Your task to perform on an android device: View the shopping cart on walmart. Add alienware area 51 to the cart on walmart, then select checkout. Image 0: 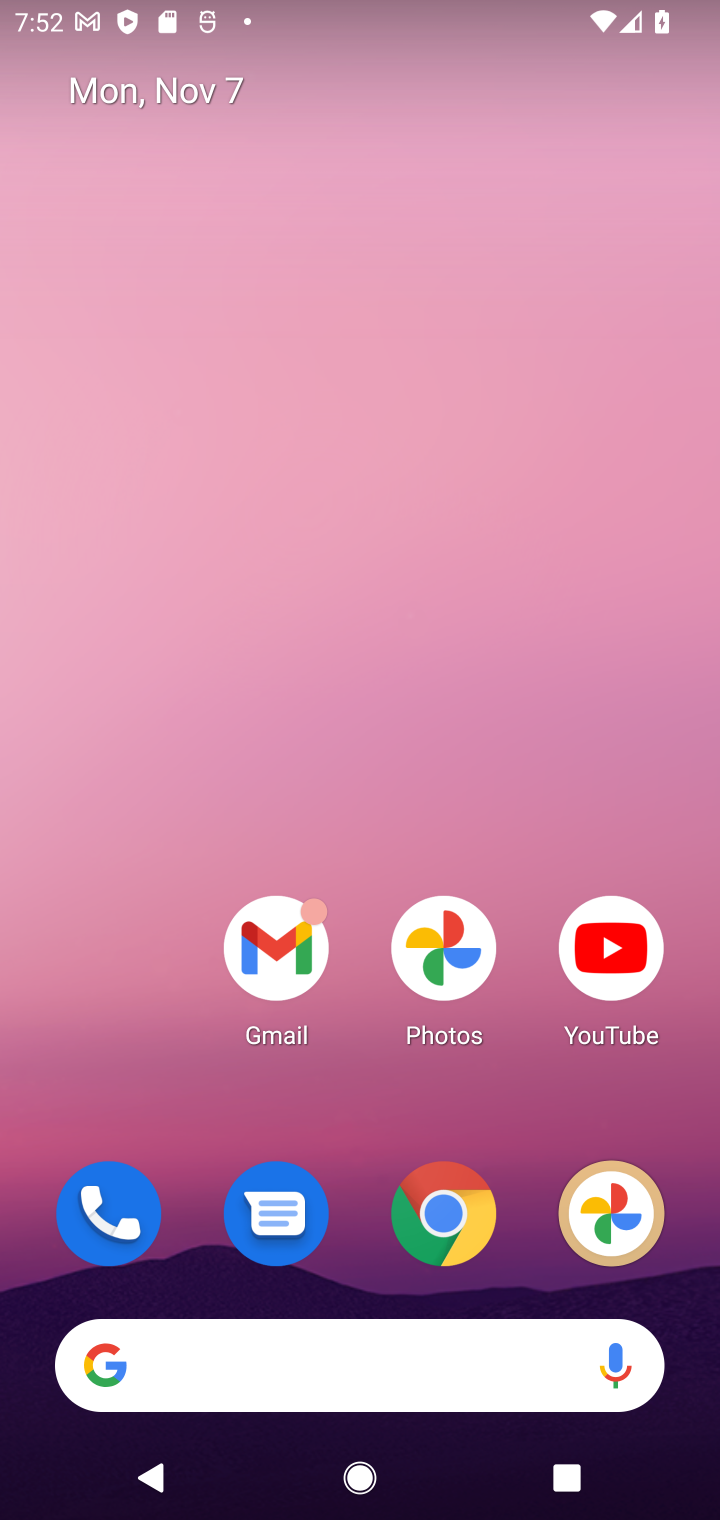
Step 0: click (444, 1231)
Your task to perform on an android device: View the shopping cart on walmart. Add alienware area 51 to the cart on walmart, then select checkout. Image 1: 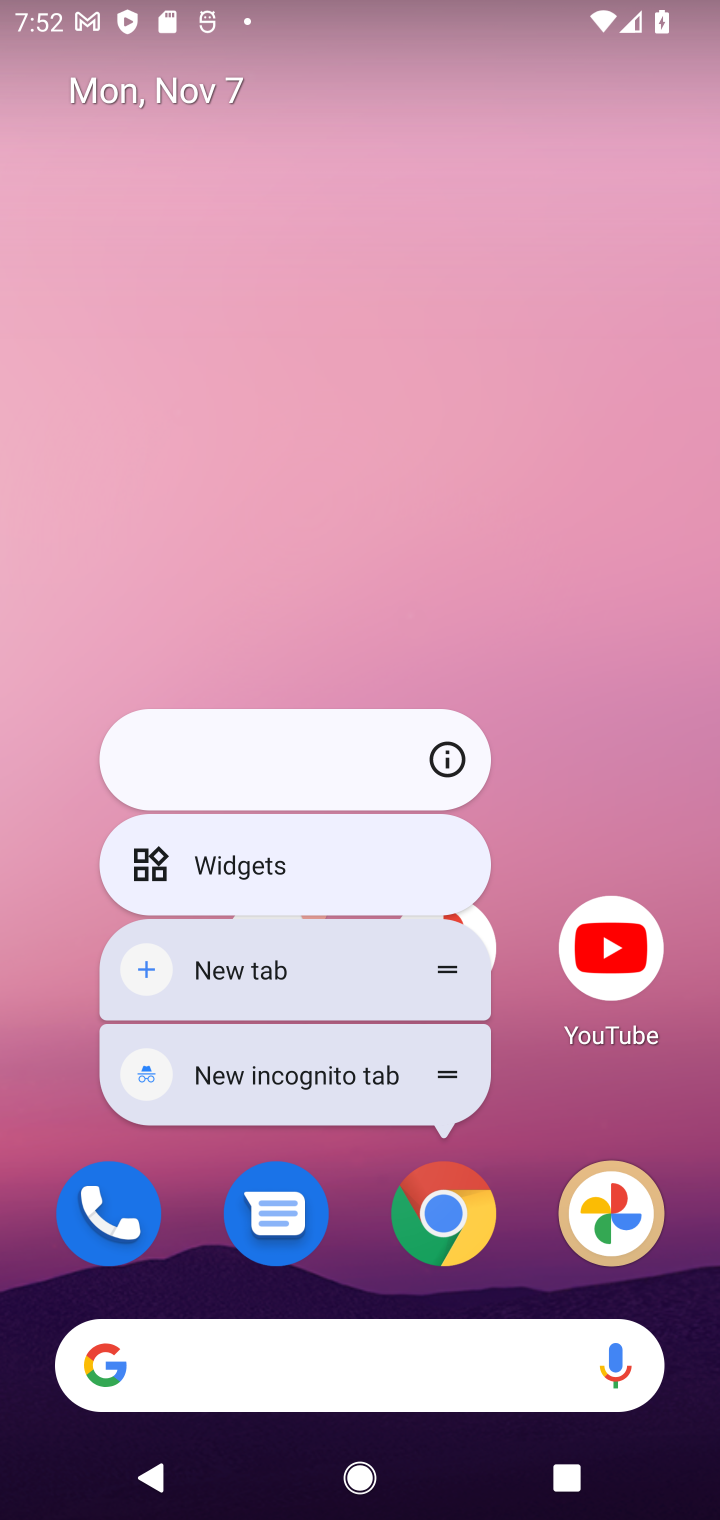
Step 1: click (444, 1231)
Your task to perform on an android device: View the shopping cart on walmart. Add alienware area 51 to the cart on walmart, then select checkout. Image 2: 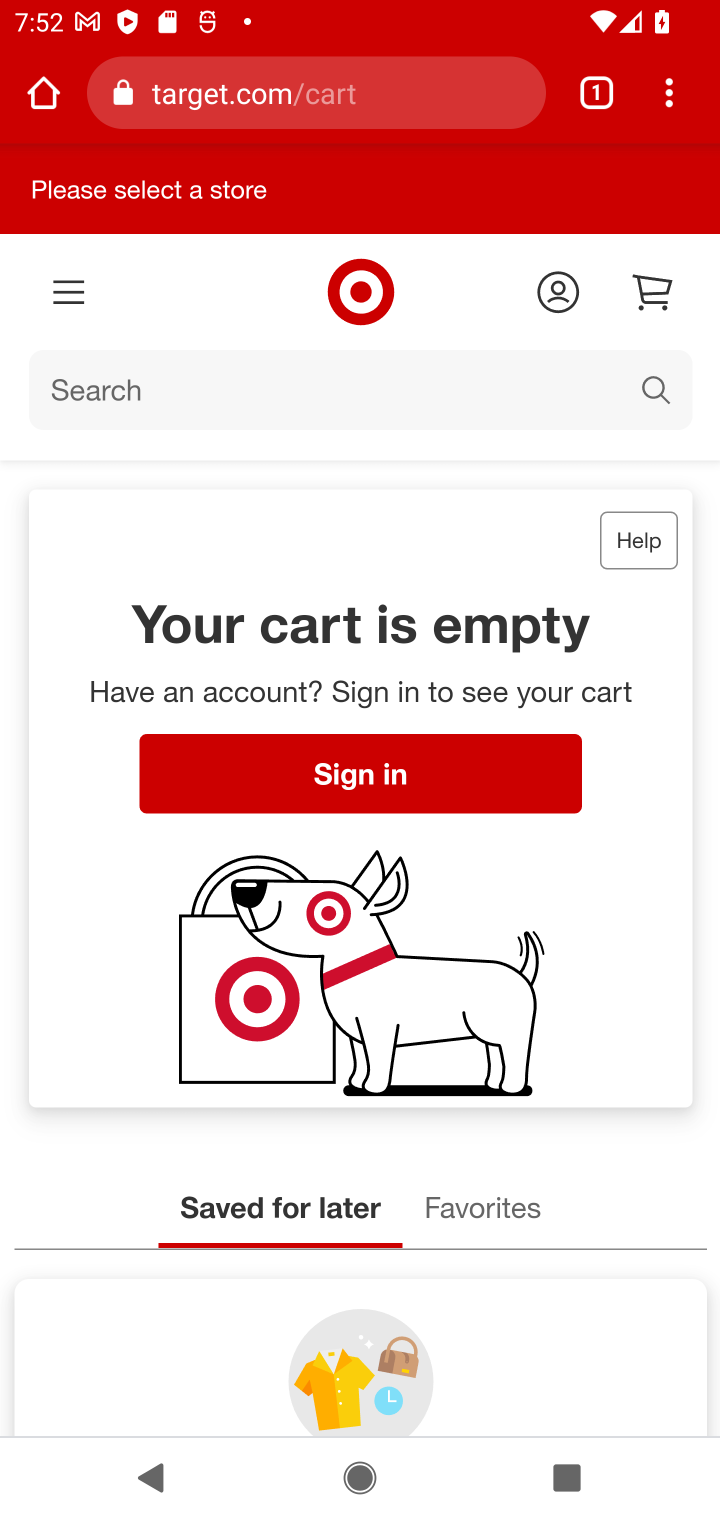
Step 2: click (251, 86)
Your task to perform on an android device: View the shopping cart on walmart. Add alienware area 51 to the cart on walmart, then select checkout. Image 3: 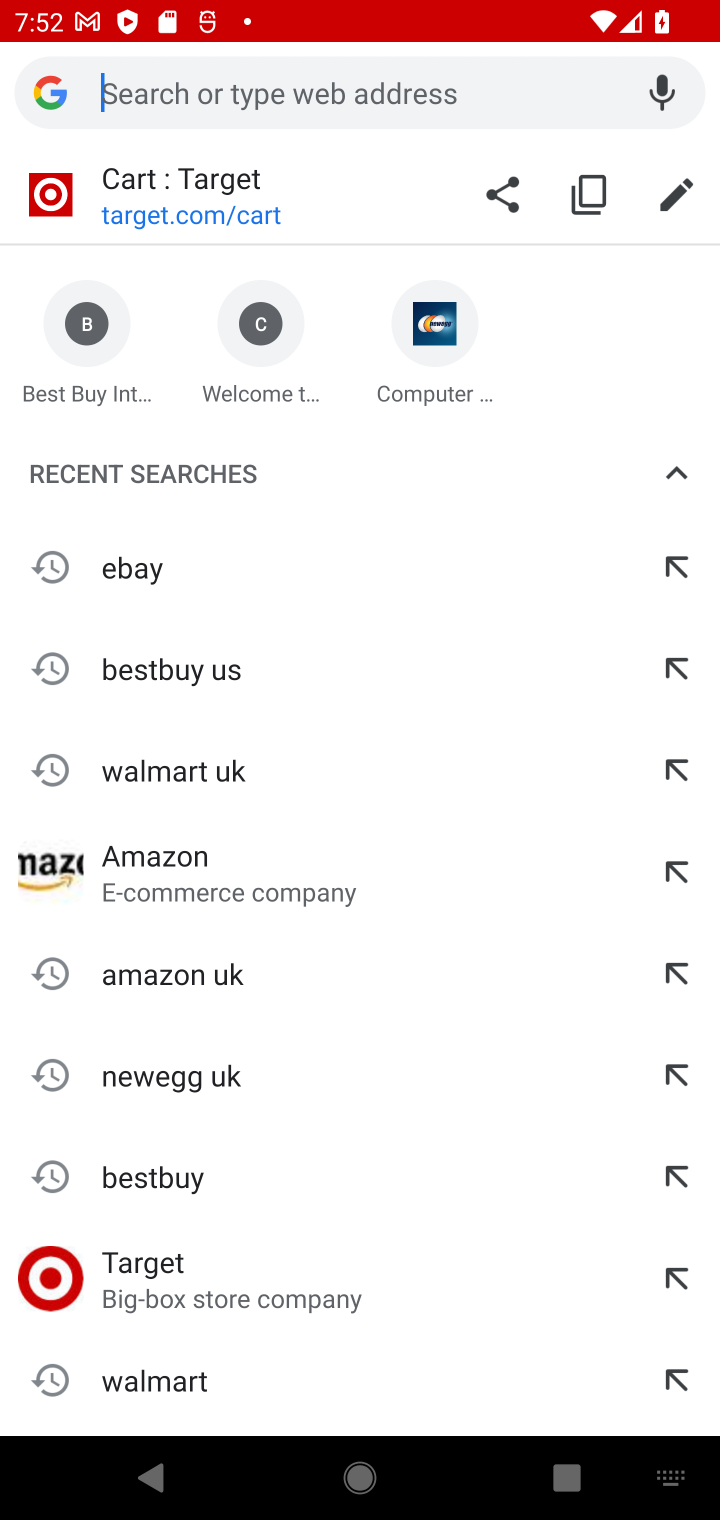
Step 3: type "walmart.com"
Your task to perform on an android device: View the shopping cart on walmart. Add alienware area 51 to the cart on walmart, then select checkout. Image 4: 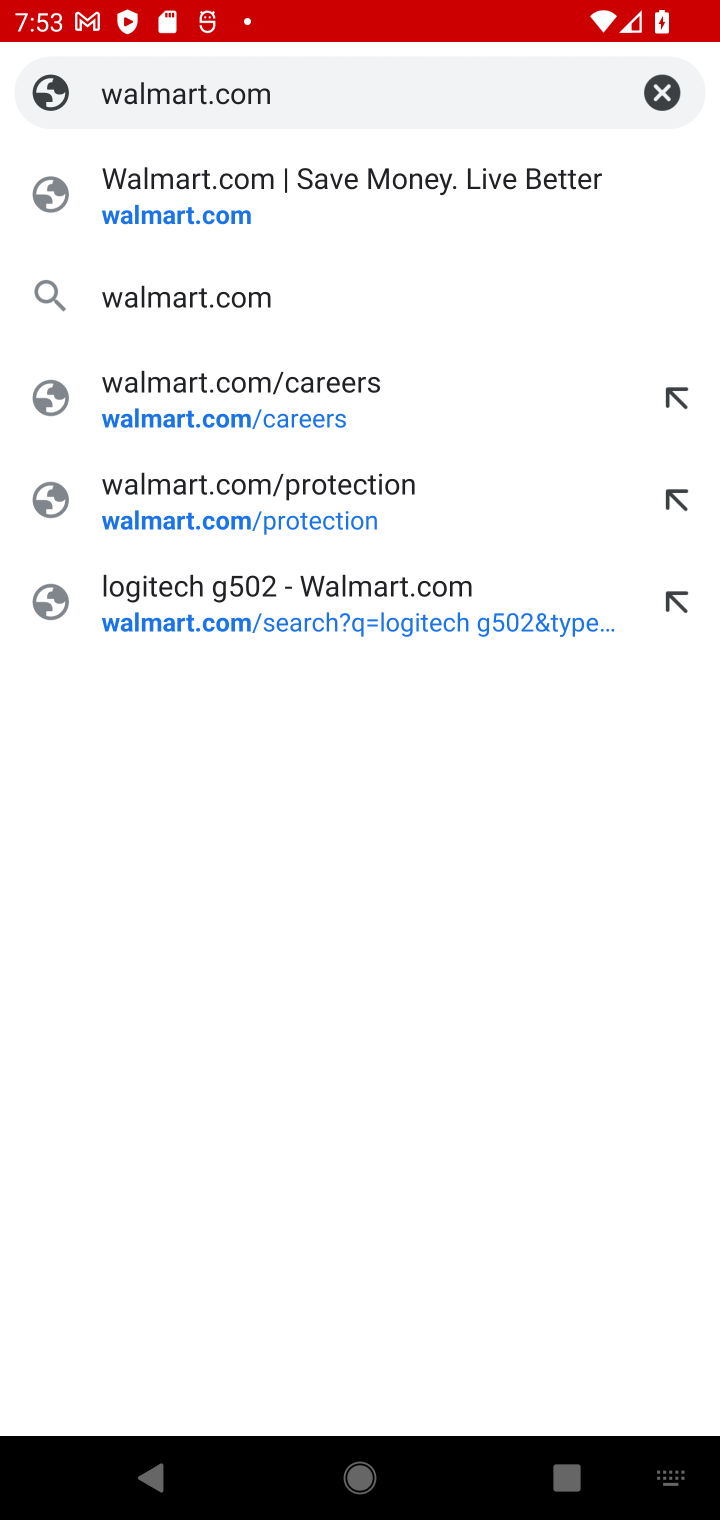
Step 4: click (155, 224)
Your task to perform on an android device: View the shopping cart on walmart. Add alienware area 51 to the cart on walmart, then select checkout. Image 5: 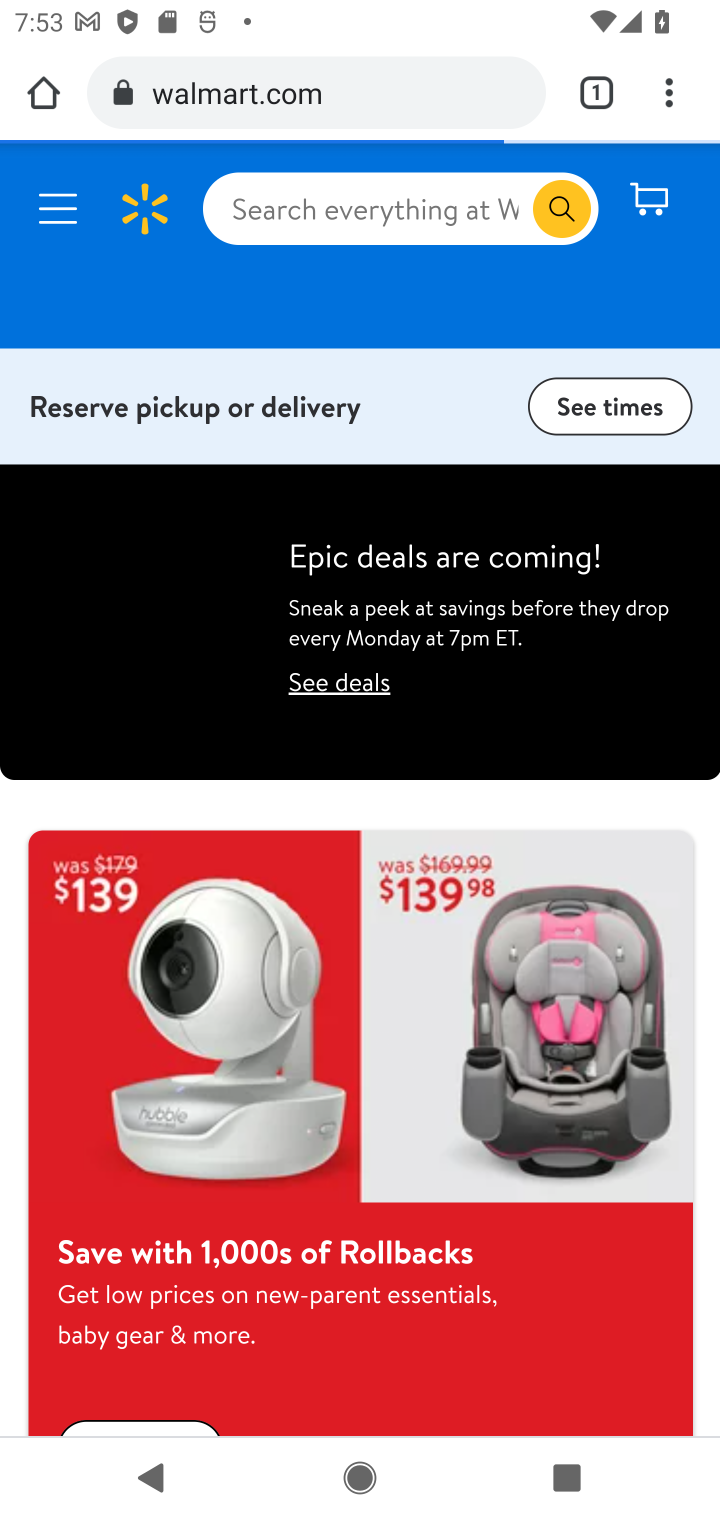
Step 5: click (652, 197)
Your task to perform on an android device: View the shopping cart on walmart. Add alienware area 51 to the cart on walmart, then select checkout. Image 6: 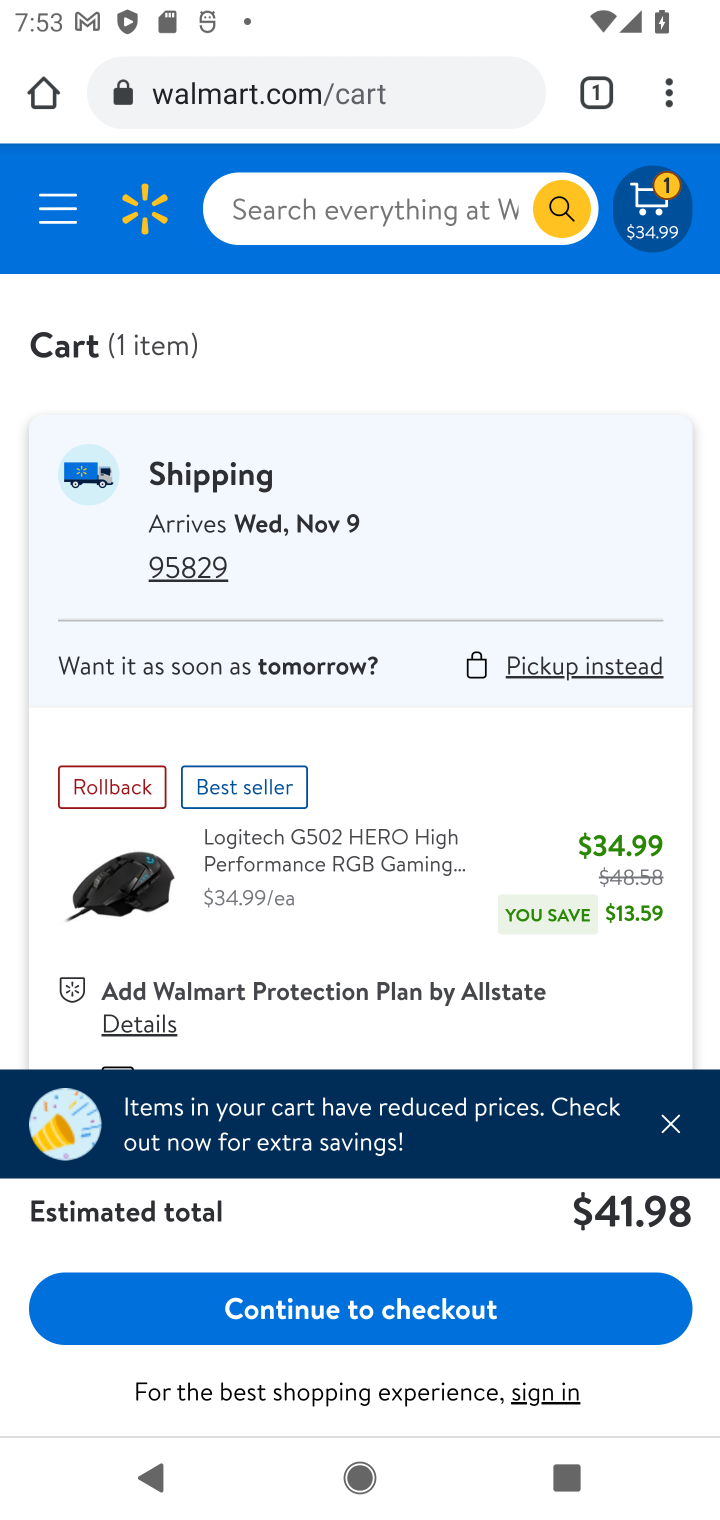
Step 6: click (404, 214)
Your task to perform on an android device: View the shopping cart on walmart. Add alienware area 51 to the cart on walmart, then select checkout. Image 7: 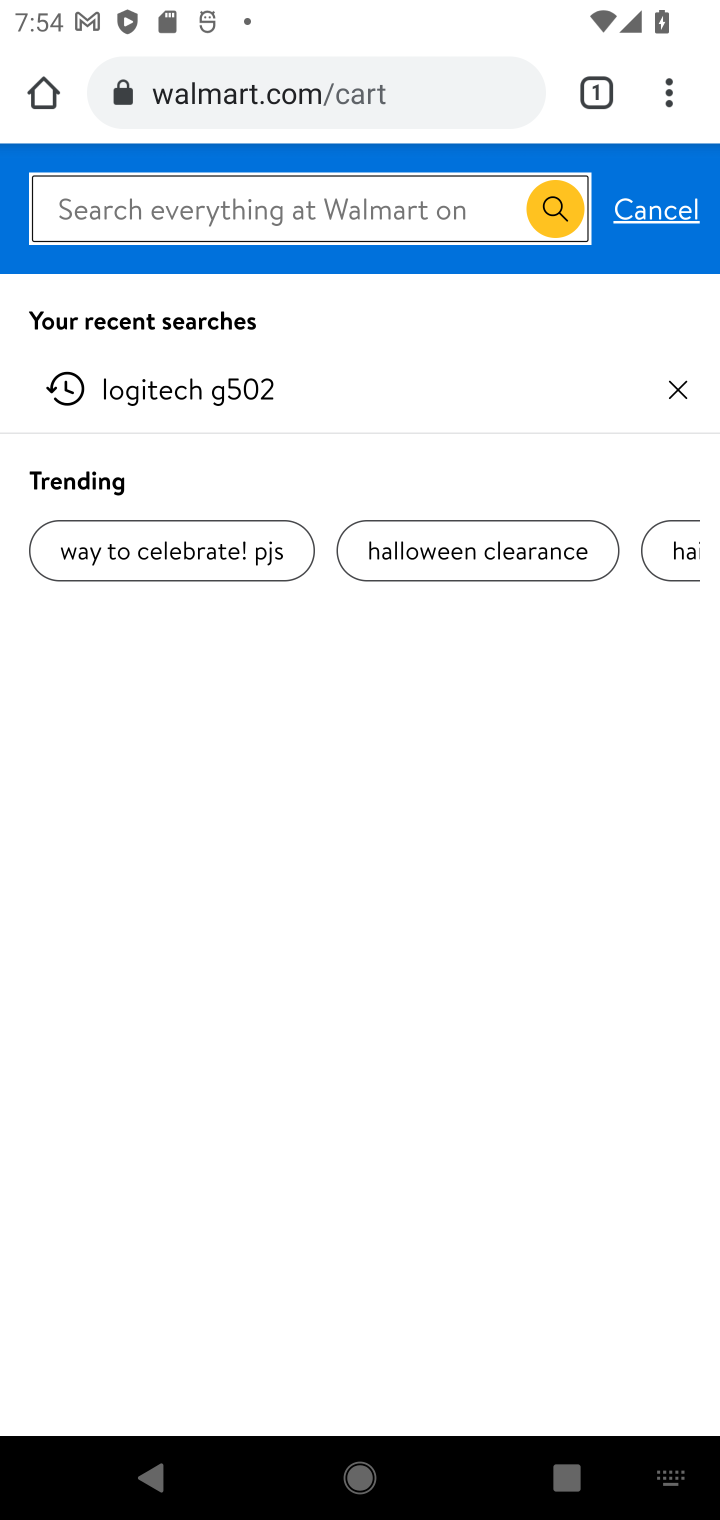
Step 7: type "alienware area 51 "
Your task to perform on an android device: View the shopping cart on walmart. Add alienware area 51 to the cart on walmart, then select checkout. Image 8: 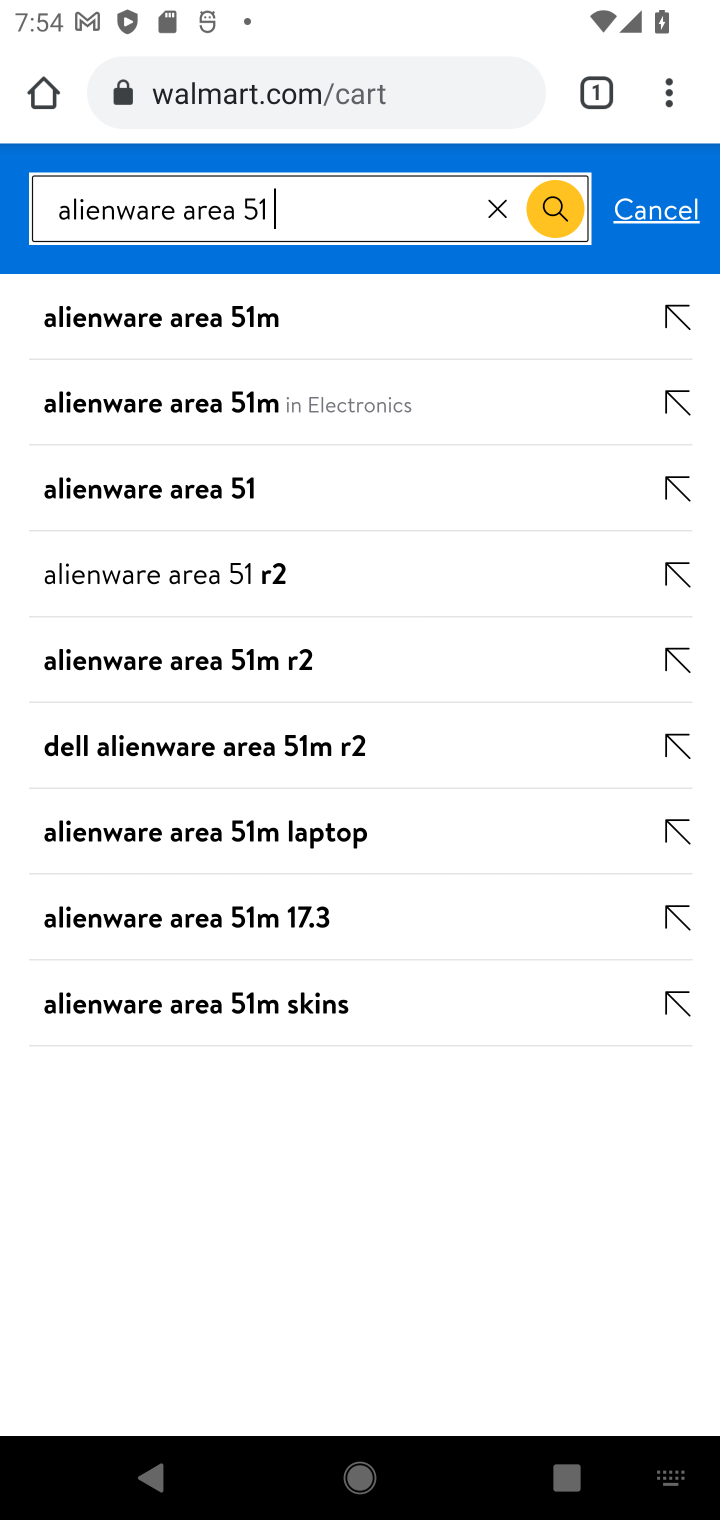
Step 8: click (225, 493)
Your task to perform on an android device: View the shopping cart on walmart. Add alienware area 51 to the cart on walmart, then select checkout. Image 9: 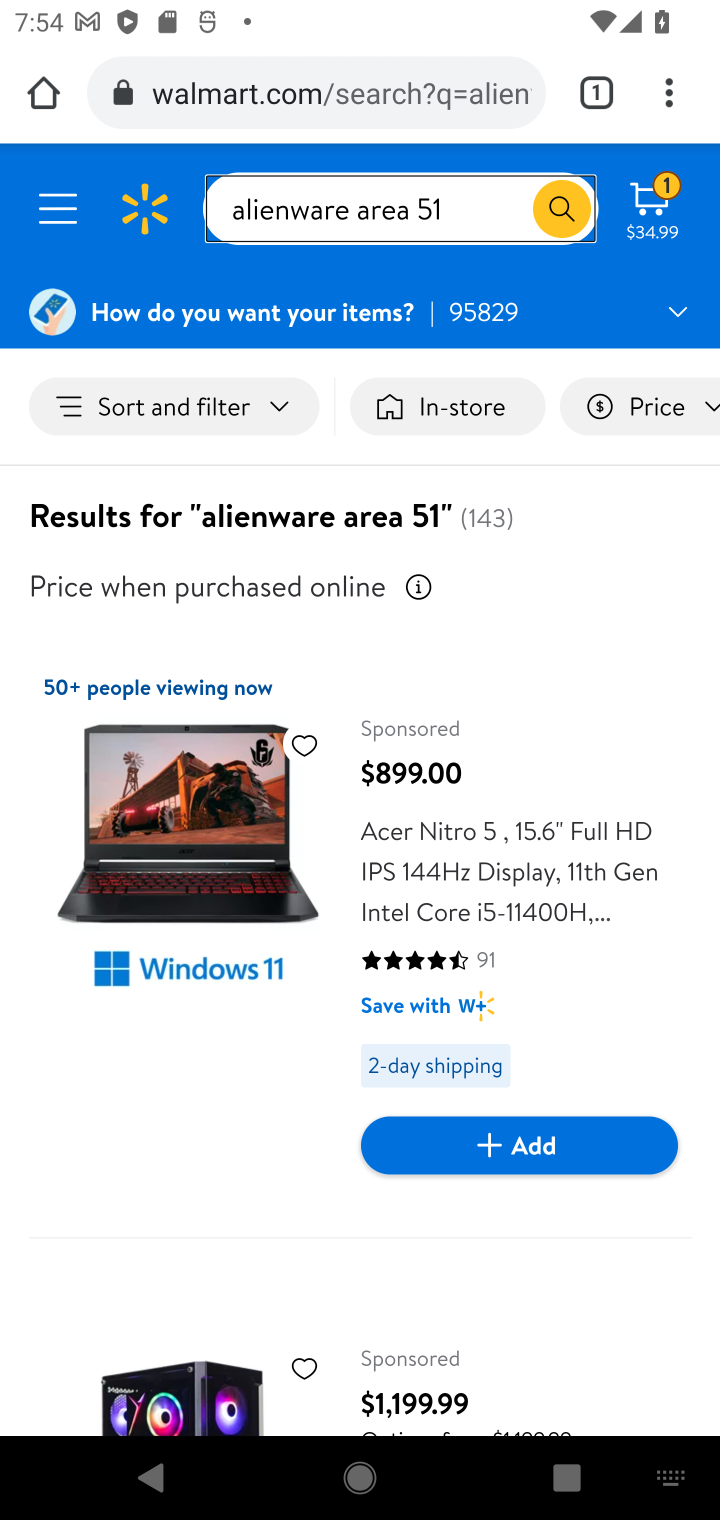
Step 9: drag from (471, 886) to (483, 430)
Your task to perform on an android device: View the shopping cart on walmart. Add alienware area 51 to the cart on walmart, then select checkout. Image 10: 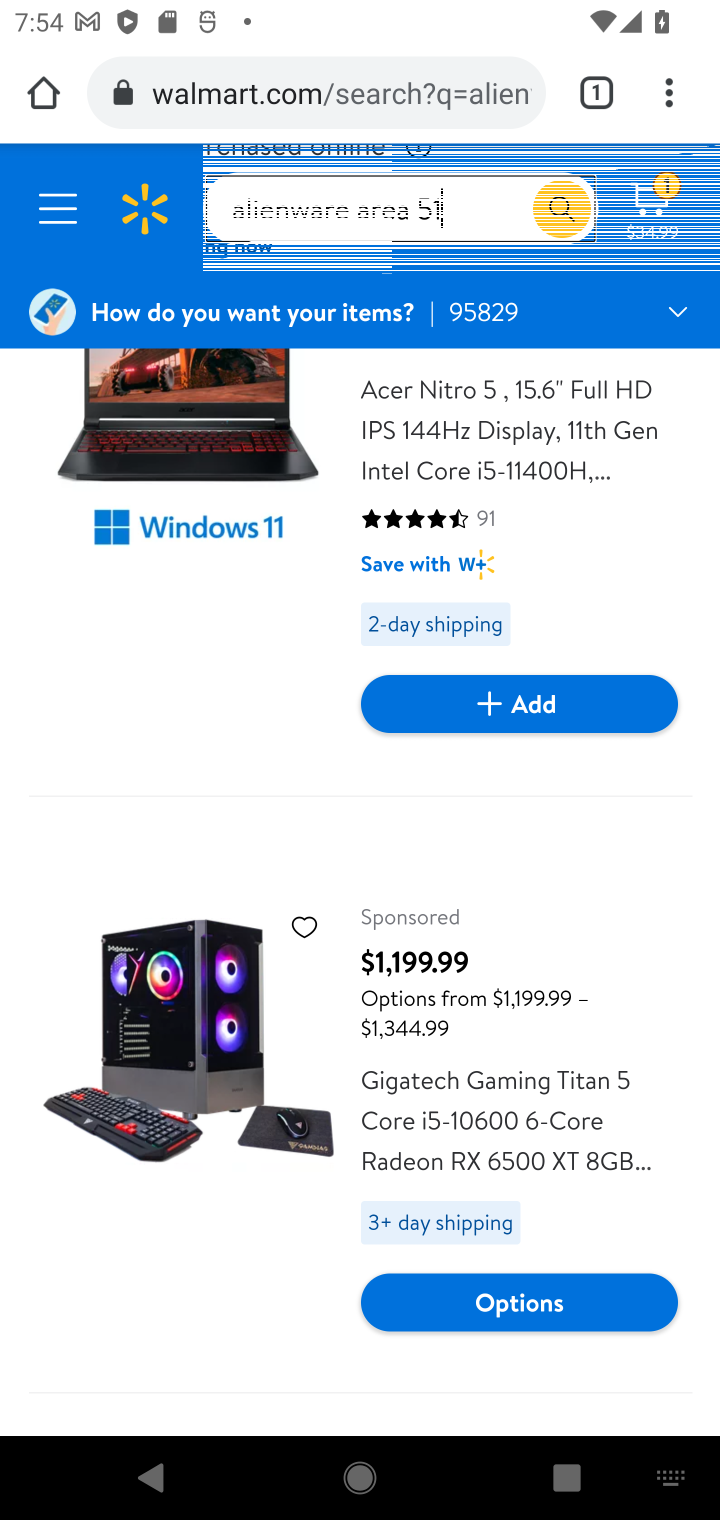
Step 10: drag from (489, 1143) to (448, 633)
Your task to perform on an android device: View the shopping cart on walmart. Add alienware area 51 to the cart on walmart, then select checkout. Image 11: 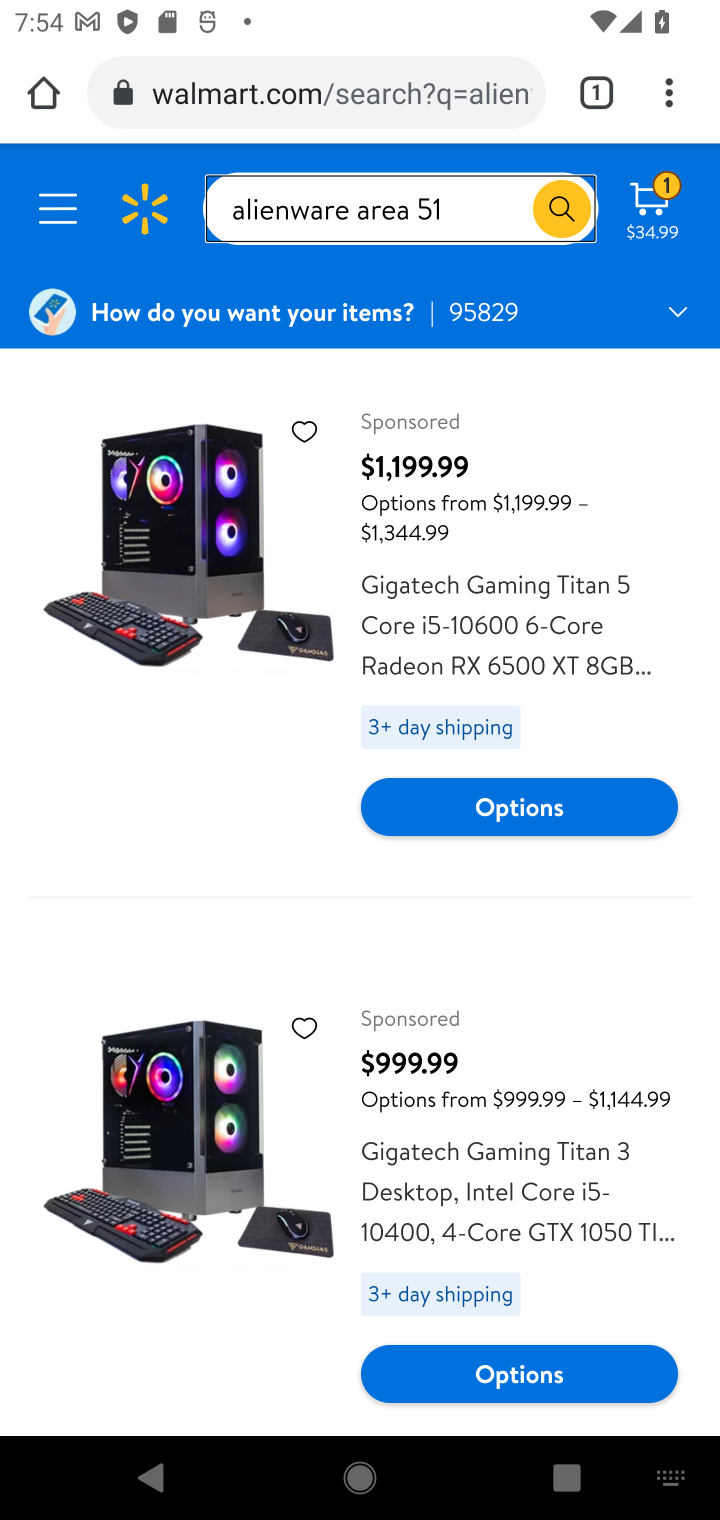
Step 11: drag from (328, 1071) to (312, 576)
Your task to perform on an android device: View the shopping cart on walmart. Add alienware area 51 to the cart on walmart, then select checkout. Image 12: 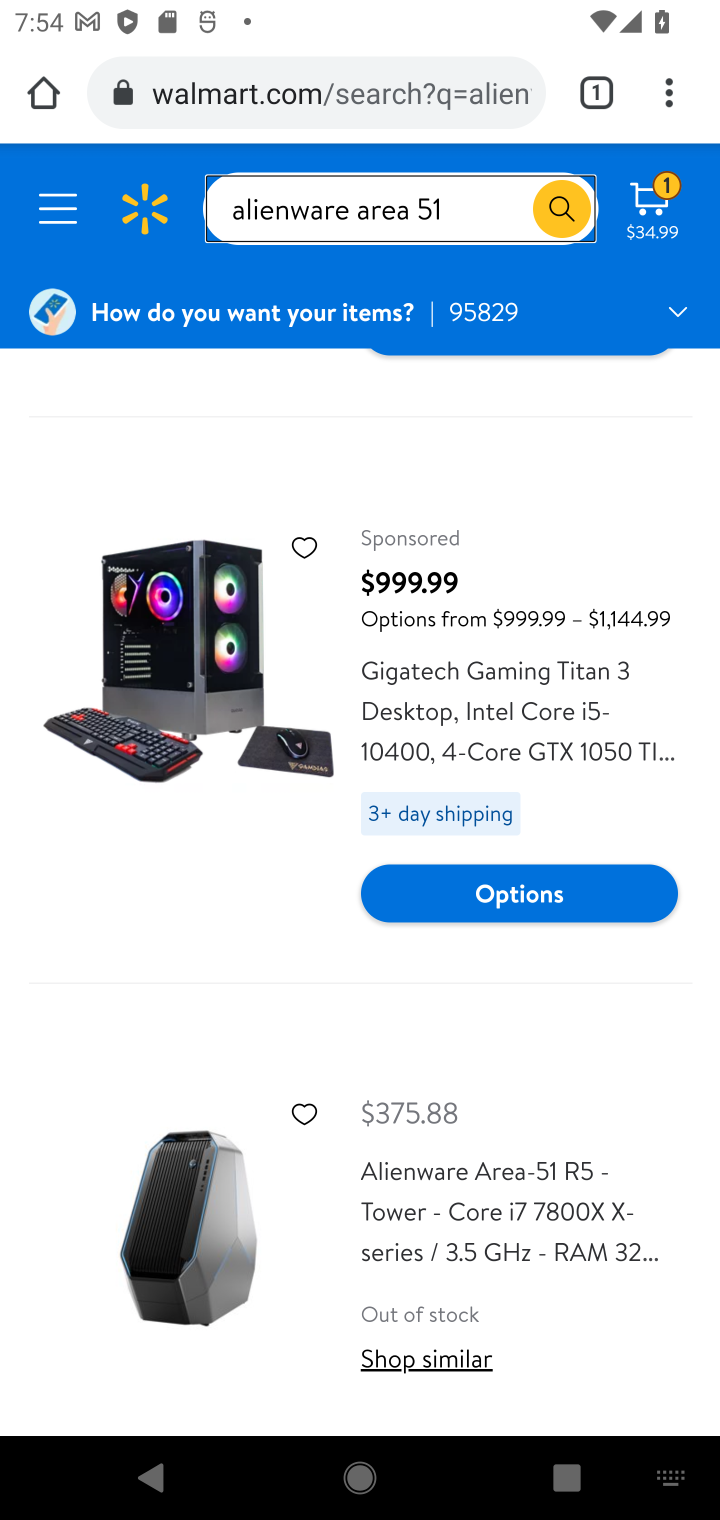
Step 12: drag from (365, 1228) to (348, 605)
Your task to perform on an android device: View the shopping cart on walmart. Add alienware area 51 to the cart on walmart, then select checkout. Image 13: 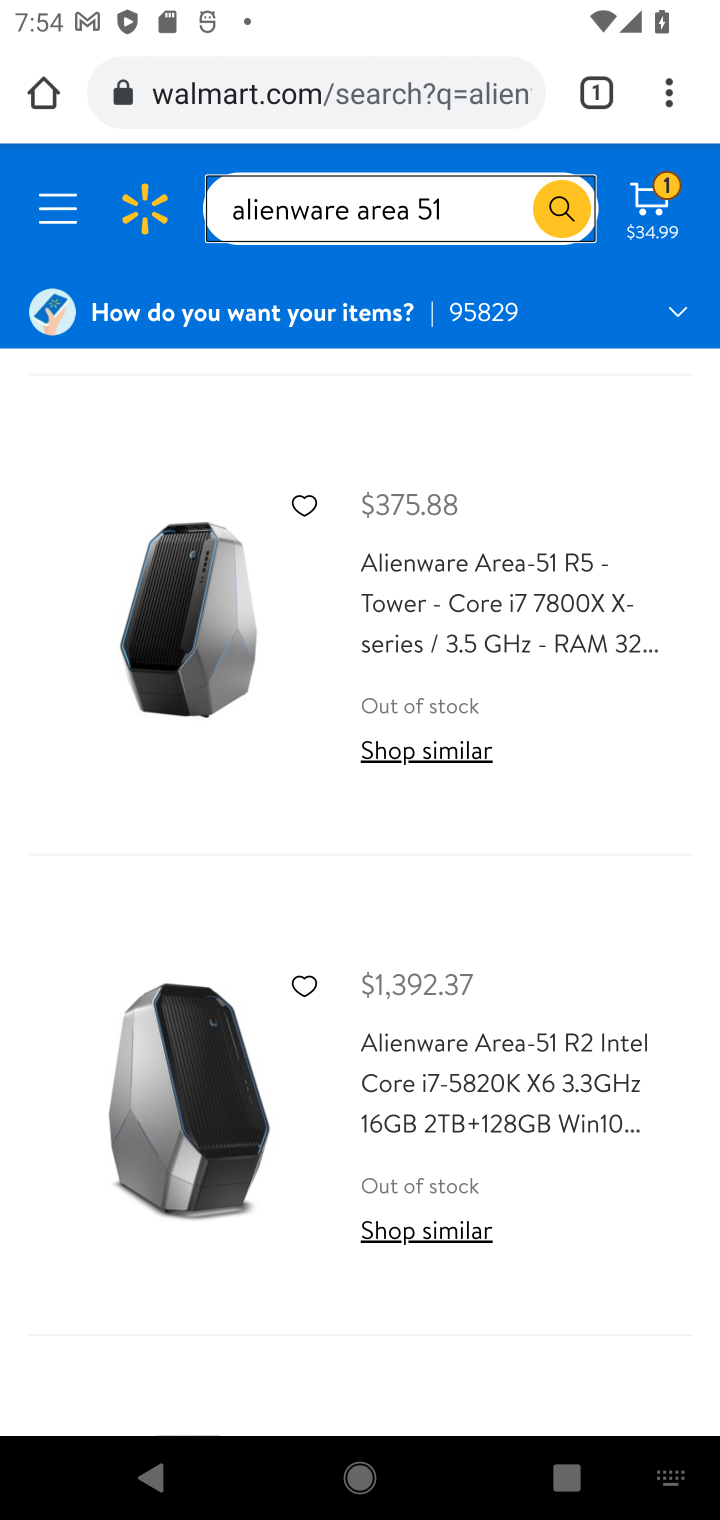
Step 13: drag from (292, 1289) to (305, 634)
Your task to perform on an android device: View the shopping cart on walmart. Add alienware area 51 to the cart on walmart, then select checkout. Image 14: 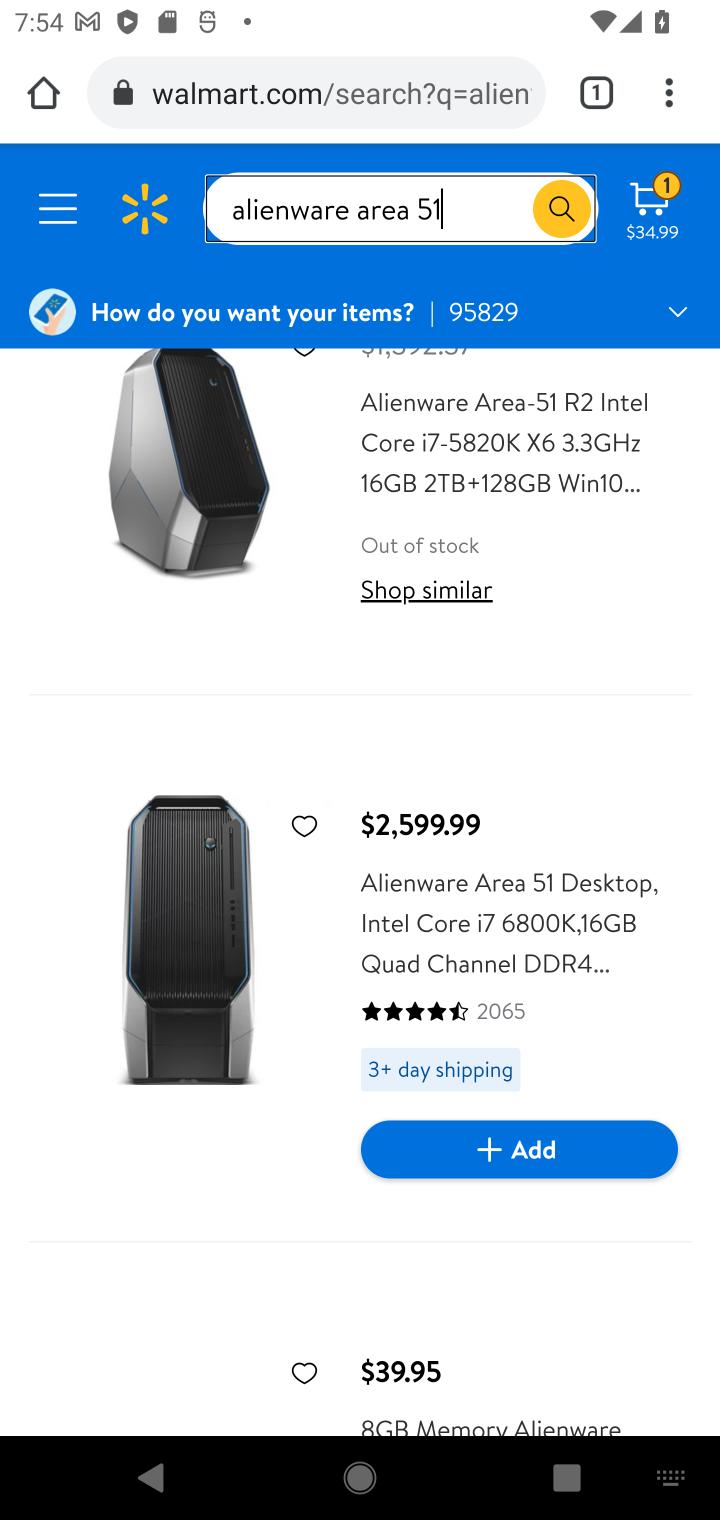
Step 14: click (549, 1156)
Your task to perform on an android device: View the shopping cart on walmart. Add alienware area 51 to the cart on walmart, then select checkout. Image 15: 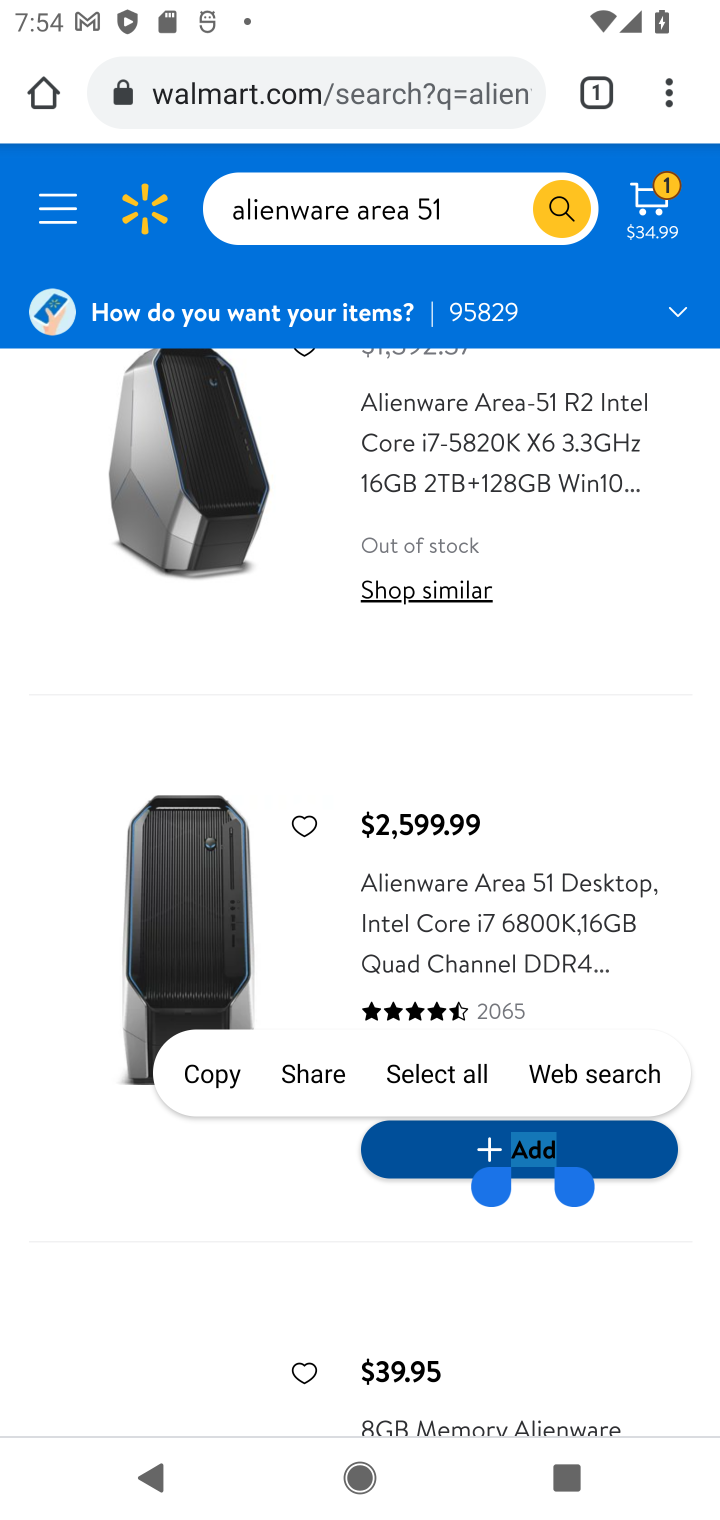
Step 15: click (512, 1164)
Your task to perform on an android device: View the shopping cart on walmart. Add alienware area 51 to the cart on walmart, then select checkout. Image 16: 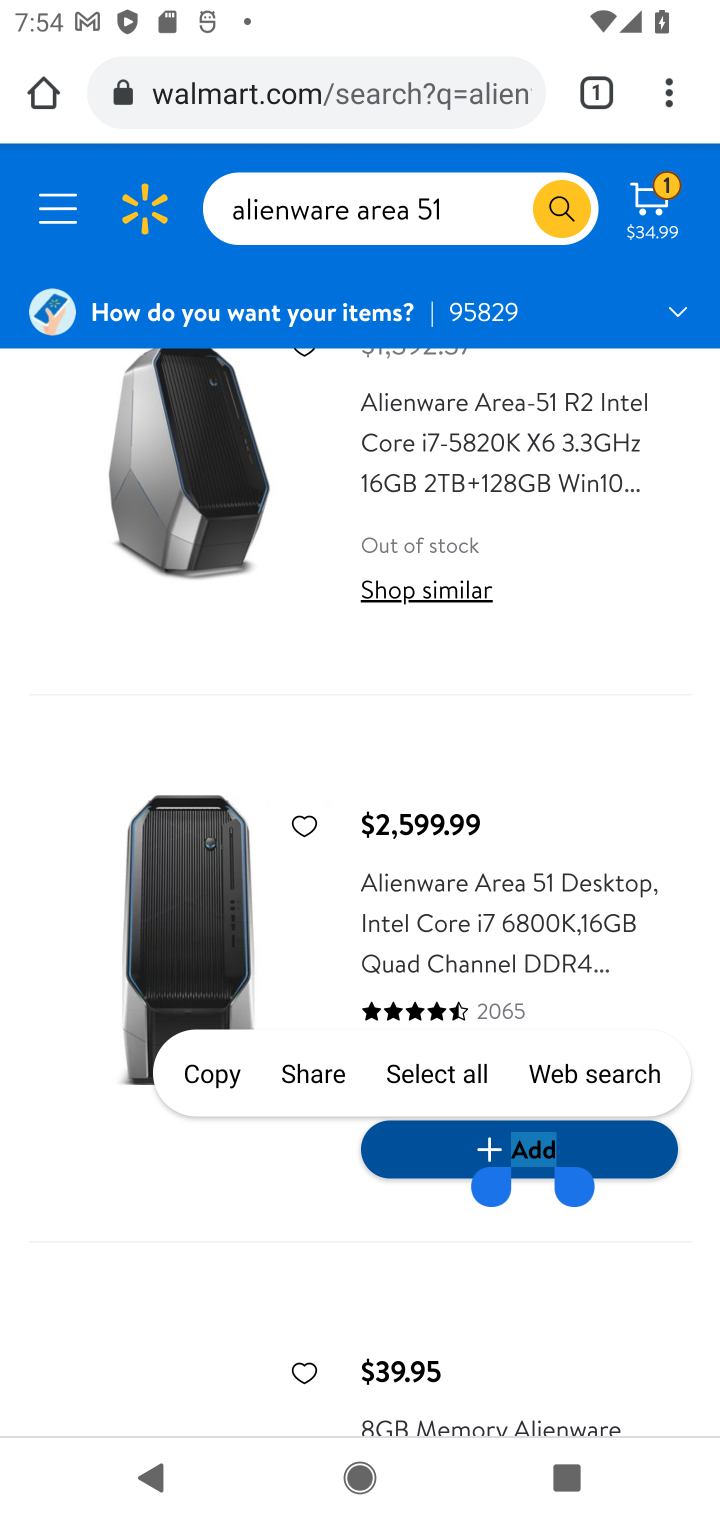
Step 16: click (542, 1166)
Your task to perform on an android device: View the shopping cart on walmart. Add alienware area 51 to the cart on walmart, then select checkout. Image 17: 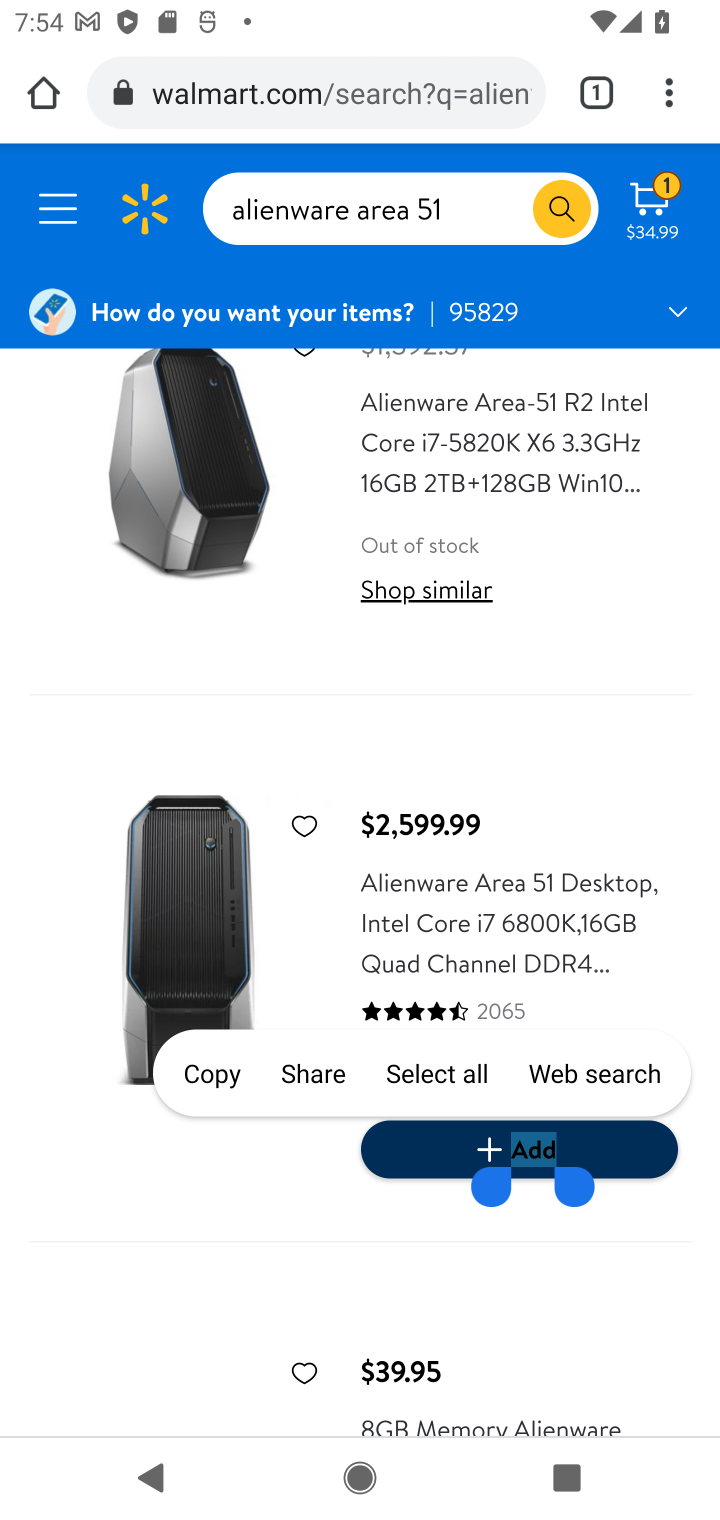
Step 17: click (542, 1166)
Your task to perform on an android device: View the shopping cart on walmart. Add alienware area 51 to the cart on walmart, then select checkout. Image 18: 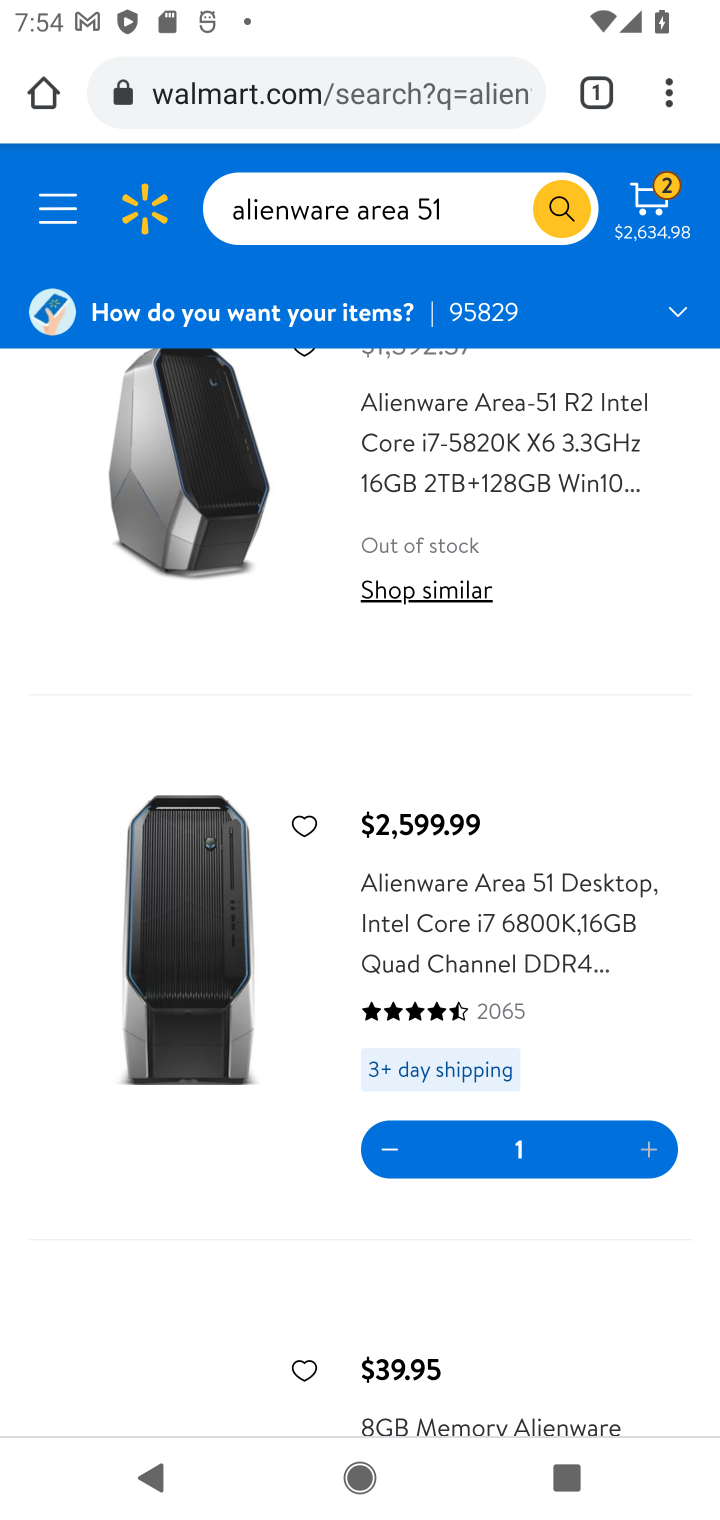
Step 18: click (648, 214)
Your task to perform on an android device: View the shopping cart on walmart. Add alienware area 51 to the cart on walmart, then select checkout. Image 19: 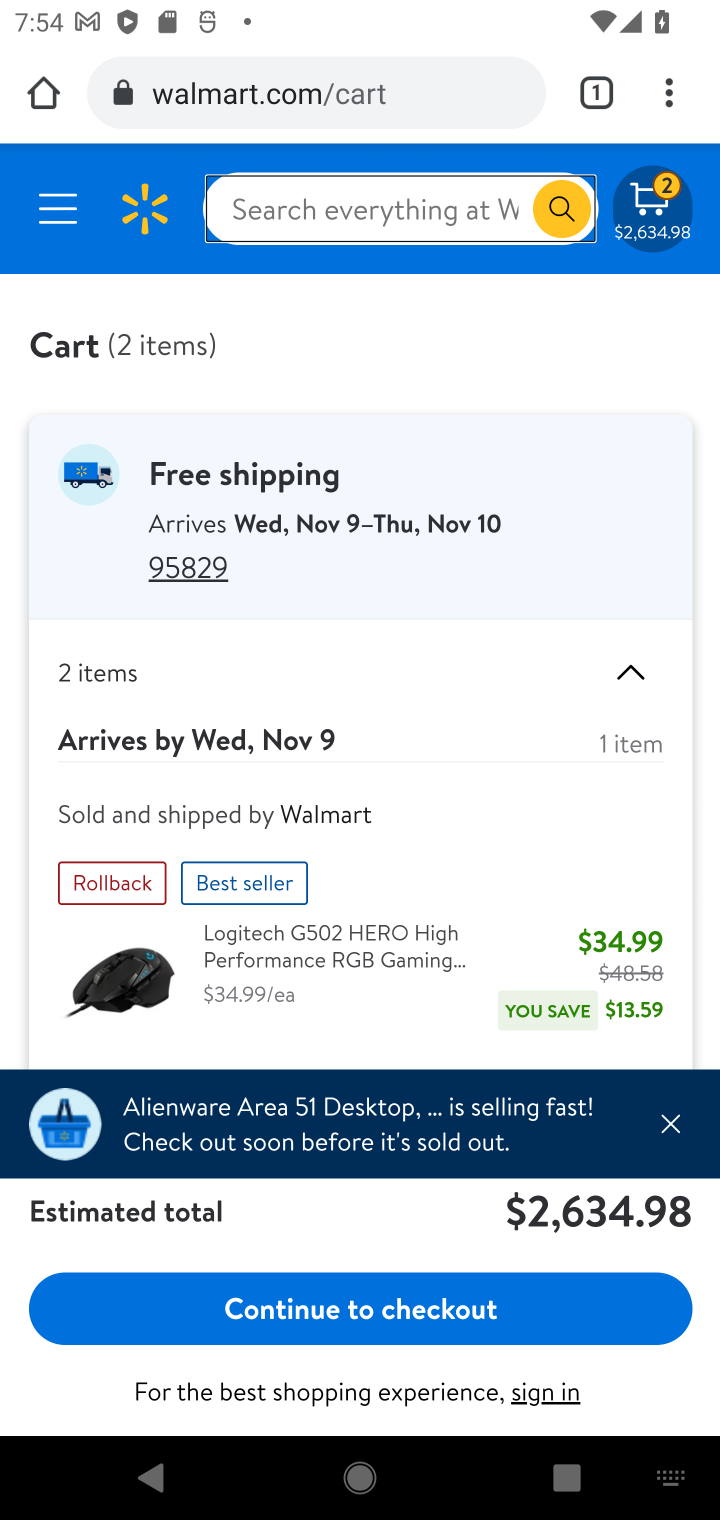
Step 19: click (368, 1319)
Your task to perform on an android device: View the shopping cart on walmart. Add alienware area 51 to the cart on walmart, then select checkout. Image 20: 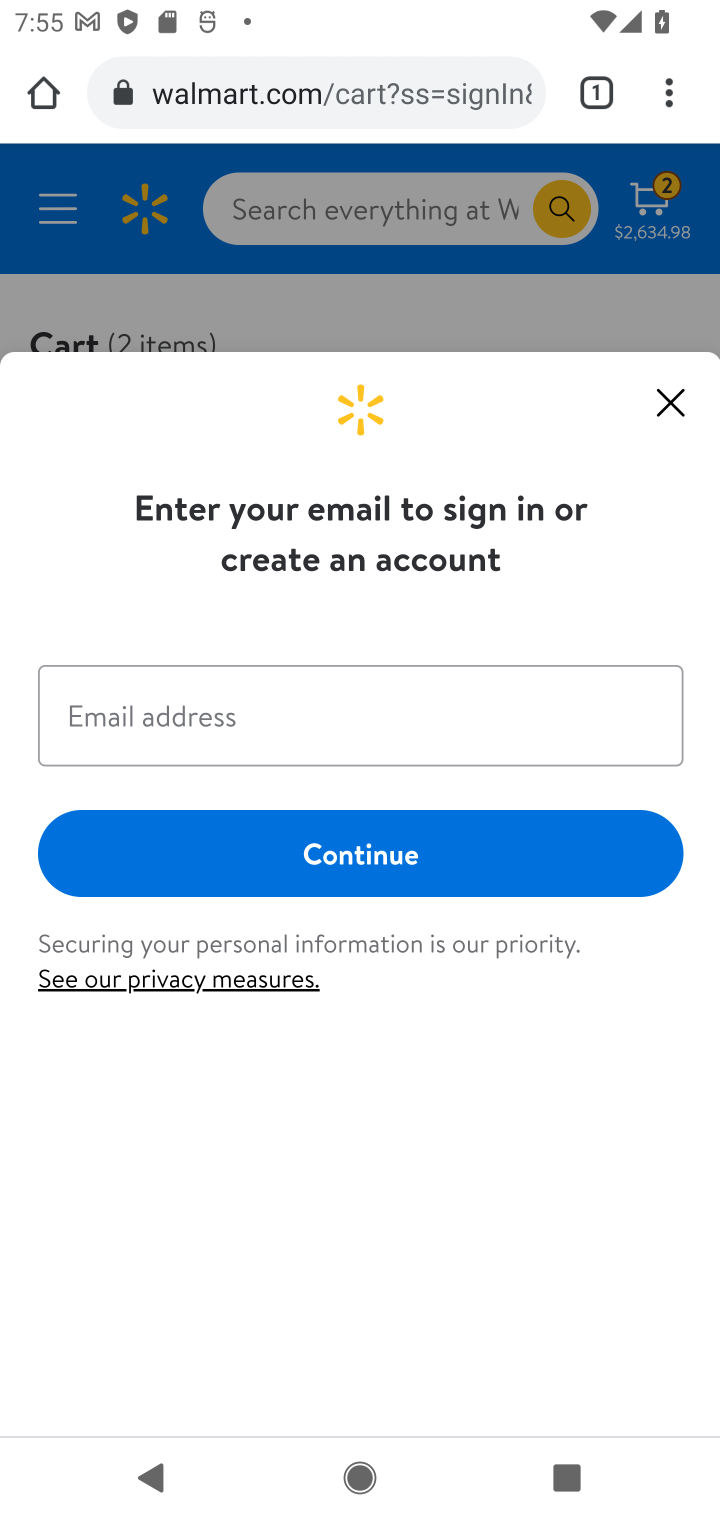
Step 20: task complete